Your task to perform on an android device: Open Yahoo.com Image 0: 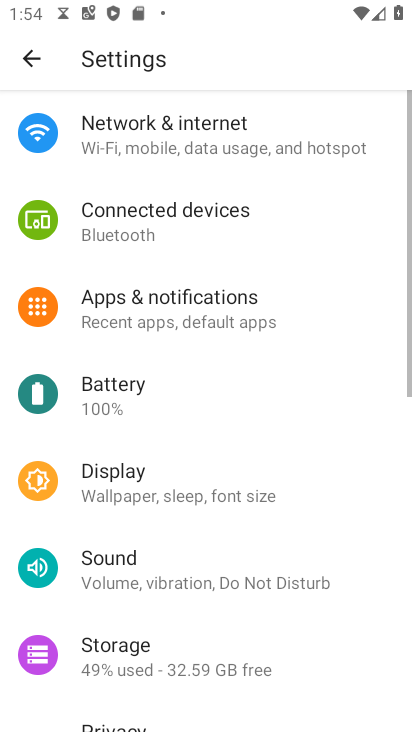
Step 0: press back button
Your task to perform on an android device: Open Yahoo.com Image 1: 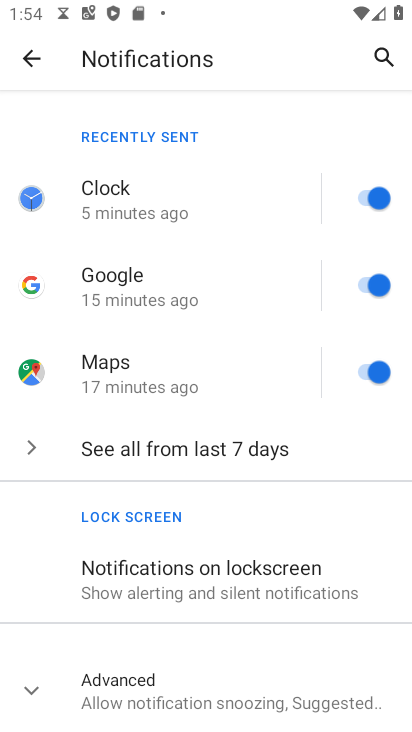
Step 1: press back button
Your task to perform on an android device: Open Yahoo.com Image 2: 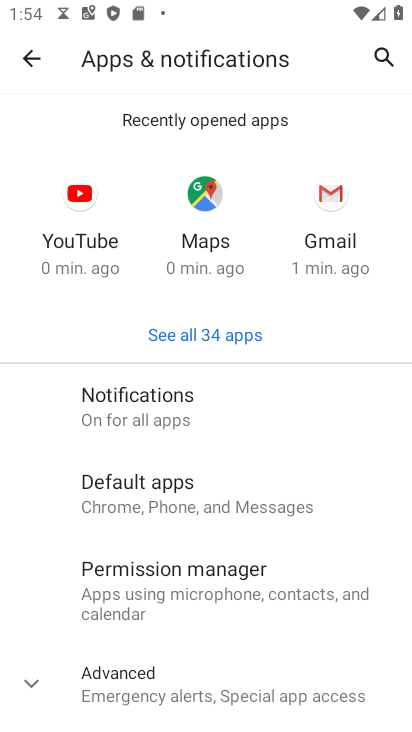
Step 2: press home button
Your task to perform on an android device: Open Yahoo.com Image 3: 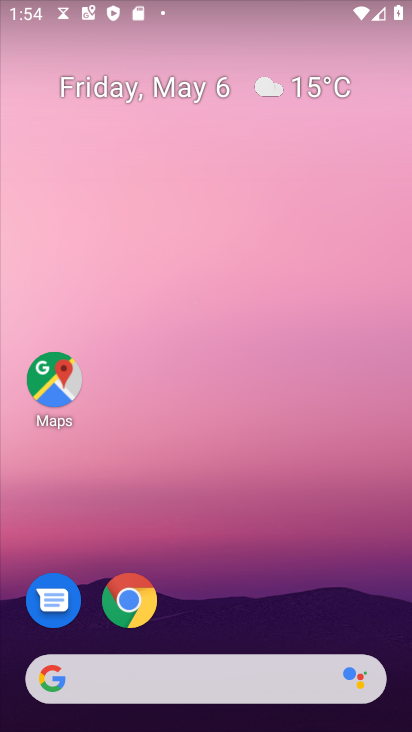
Step 3: drag from (235, 570) to (125, 0)
Your task to perform on an android device: Open Yahoo.com Image 4: 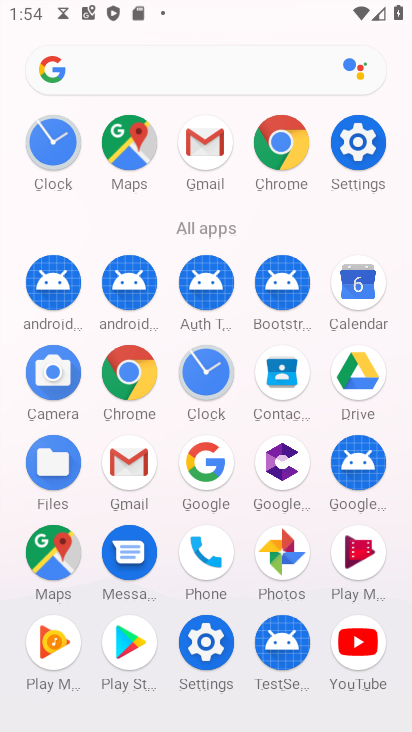
Step 4: click (126, 368)
Your task to perform on an android device: Open Yahoo.com Image 5: 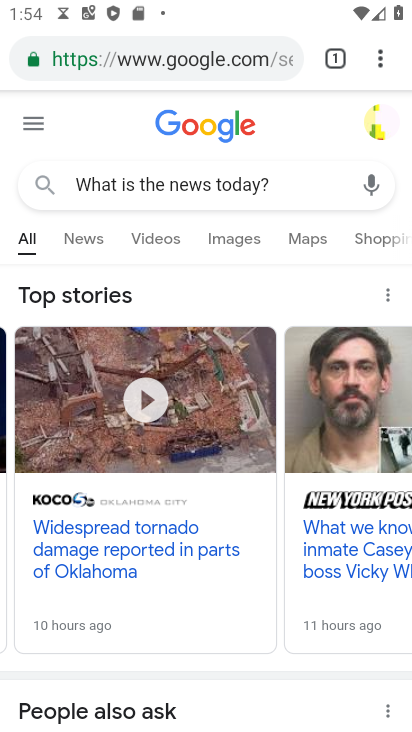
Step 5: click (193, 51)
Your task to perform on an android device: Open Yahoo.com Image 6: 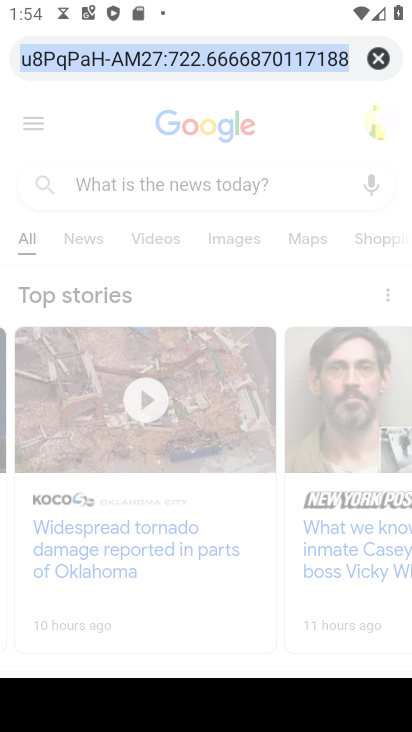
Step 6: click (381, 57)
Your task to perform on an android device: Open Yahoo.com Image 7: 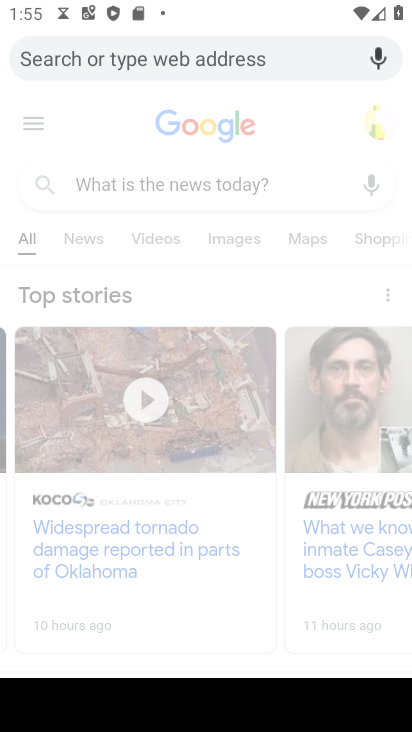
Step 7: type "Yahoo.com"
Your task to perform on an android device: Open Yahoo.com Image 8: 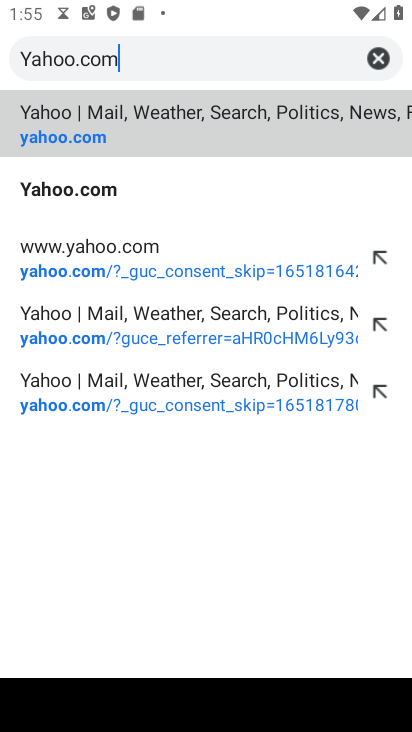
Step 8: click (94, 111)
Your task to perform on an android device: Open Yahoo.com Image 9: 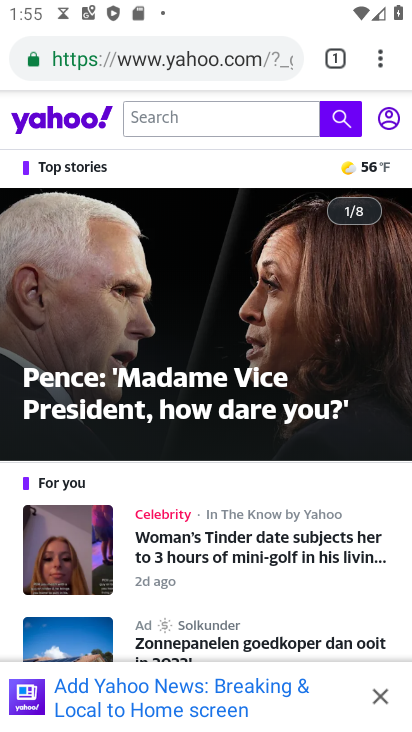
Step 9: task complete